Your task to perform on an android device: Do I have any events this weekend? Image 0: 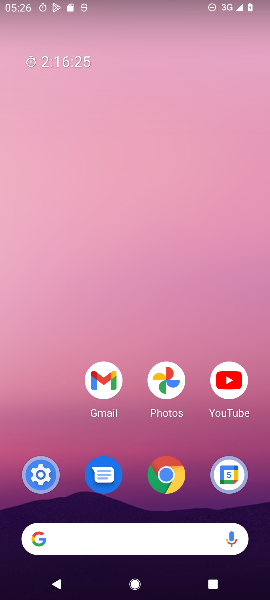
Step 0: press home button
Your task to perform on an android device: Do I have any events this weekend? Image 1: 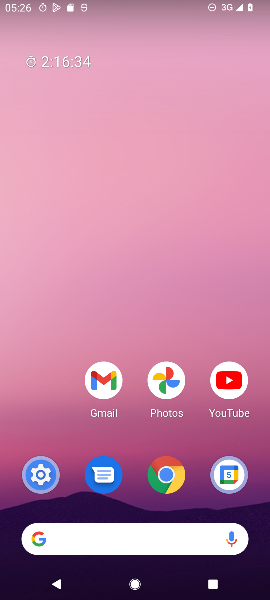
Step 1: drag from (65, 437) to (44, 200)
Your task to perform on an android device: Do I have any events this weekend? Image 2: 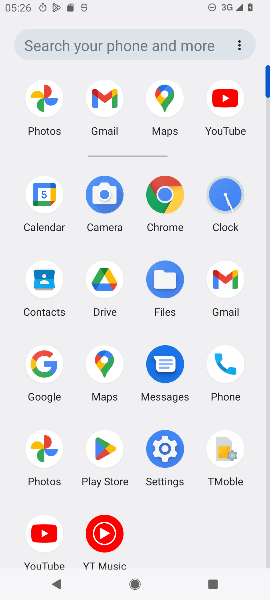
Step 2: click (45, 198)
Your task to perform on an android device: Do I have any events this weekend? Image 3: 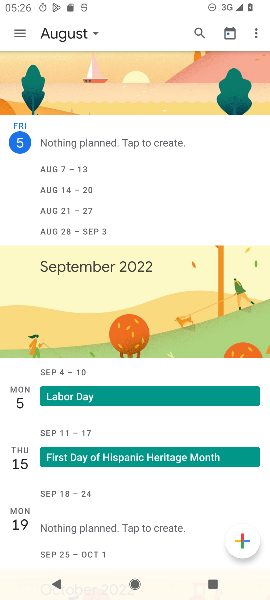
Step 3: click (93, 32)
Your task to perform on an android device: Do I have any events this weekend? Image 4: 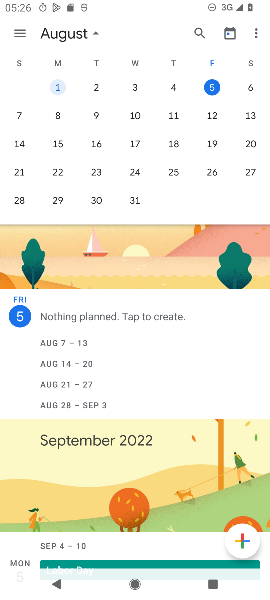
Step 4: click (244, 88)
Your task to perform on an android device: Do I have any events this weekend? Image 5: 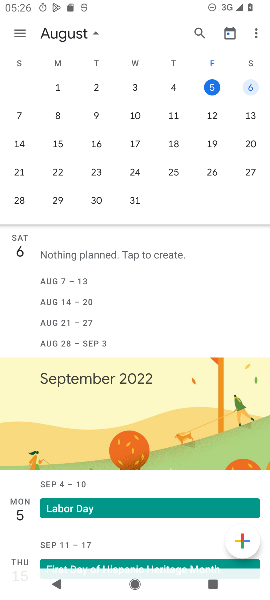
Step 5: task complete